Your task to perform on an android device: all mails in gmail Image 0: 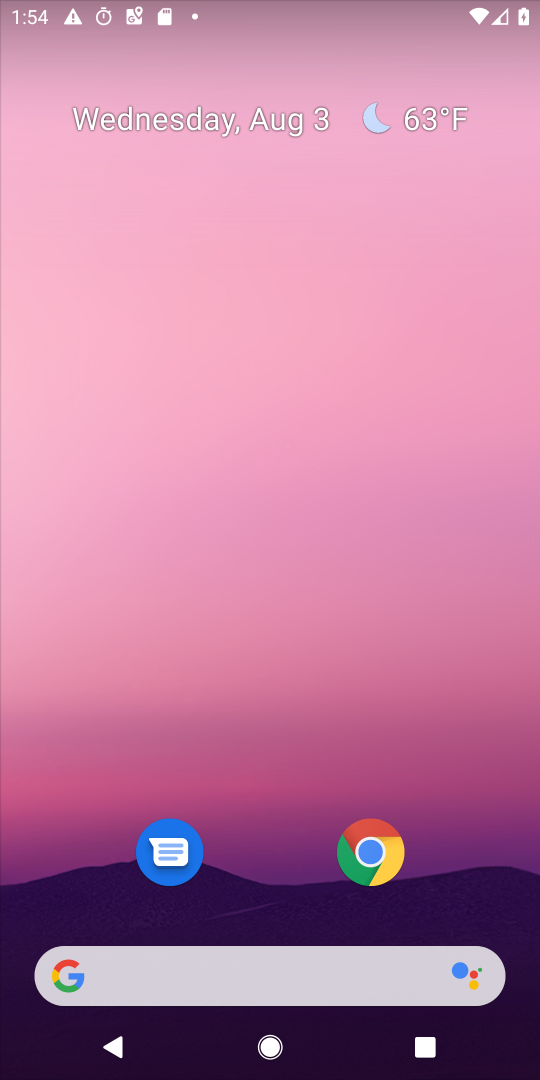
Step 0: drag from (490, 888) to (234, 88)
Your task to perform on an android device: all mails in gmail Image 1: 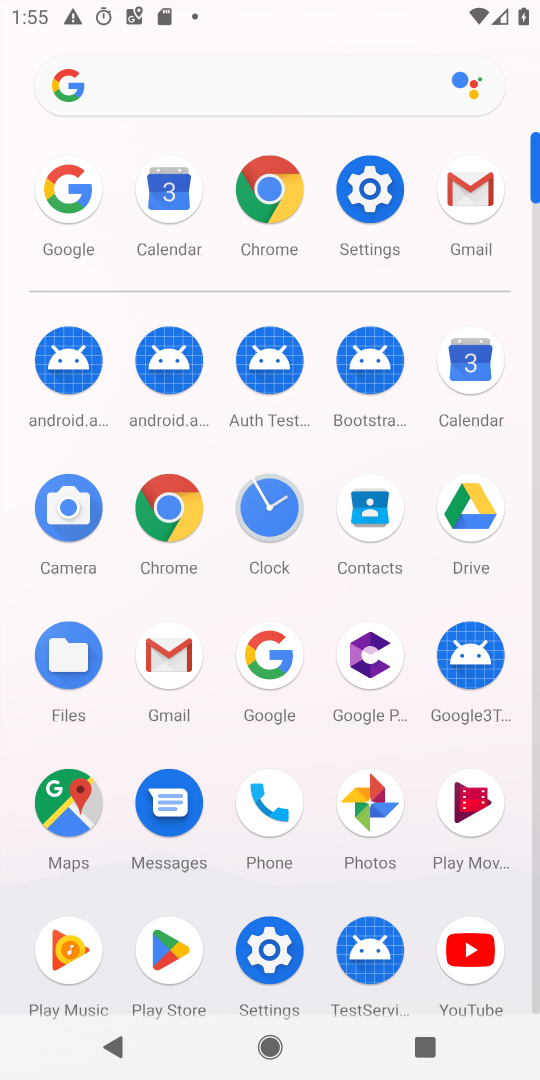
Step 1: click (166, 659)
Your task to perform on an android device: all mails in gmail Image 2: 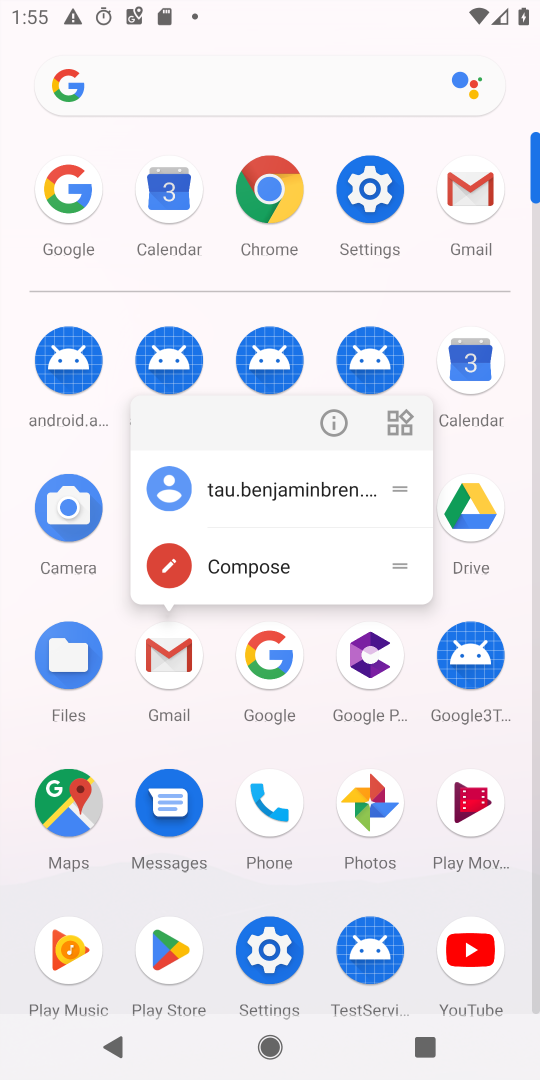
Step 2: click (166, 659)
Your task to perform on an android device: all mails in gmail Image 3: 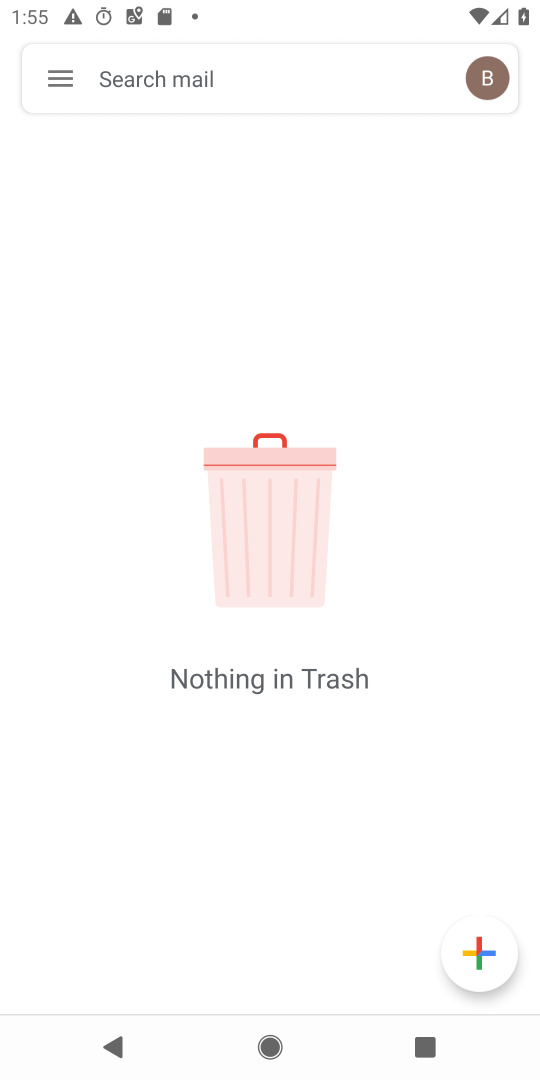
Step 3: click (60, 75)
Your task to perform on an android device: all mails in gmail Image 4: 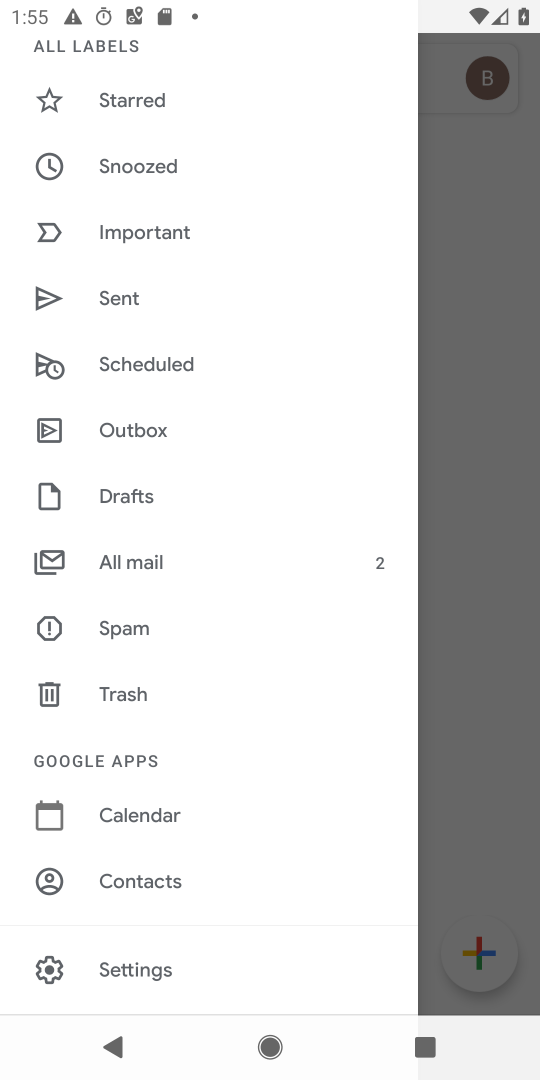
Step 4: drag from (219, 88) to (217, 788)
Your task to perform on an android device: all mails in gmail Image 5: 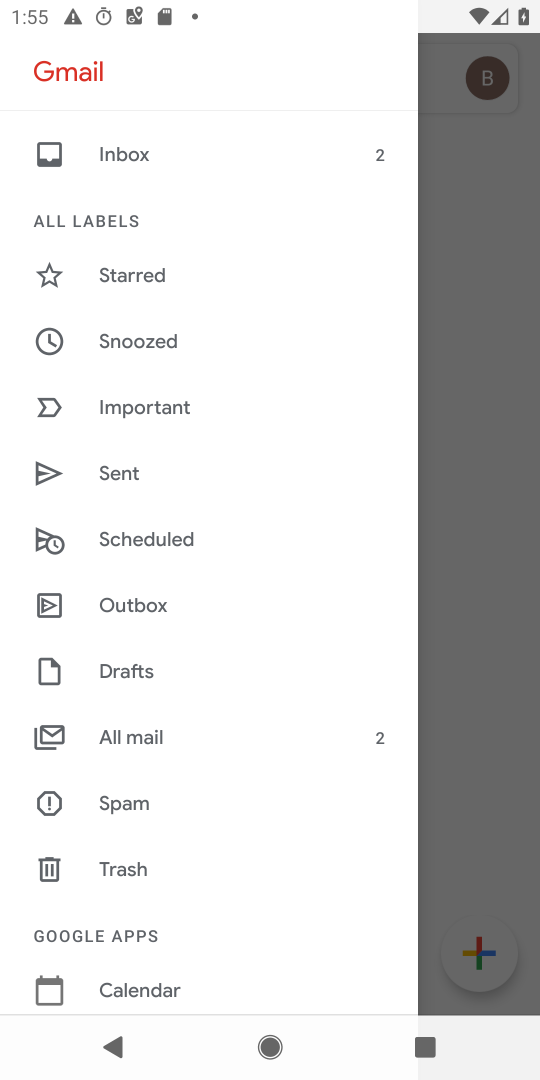
Step 5: click (136, 754)
Your task to perform on an android device: all mails in gmail Image 6: 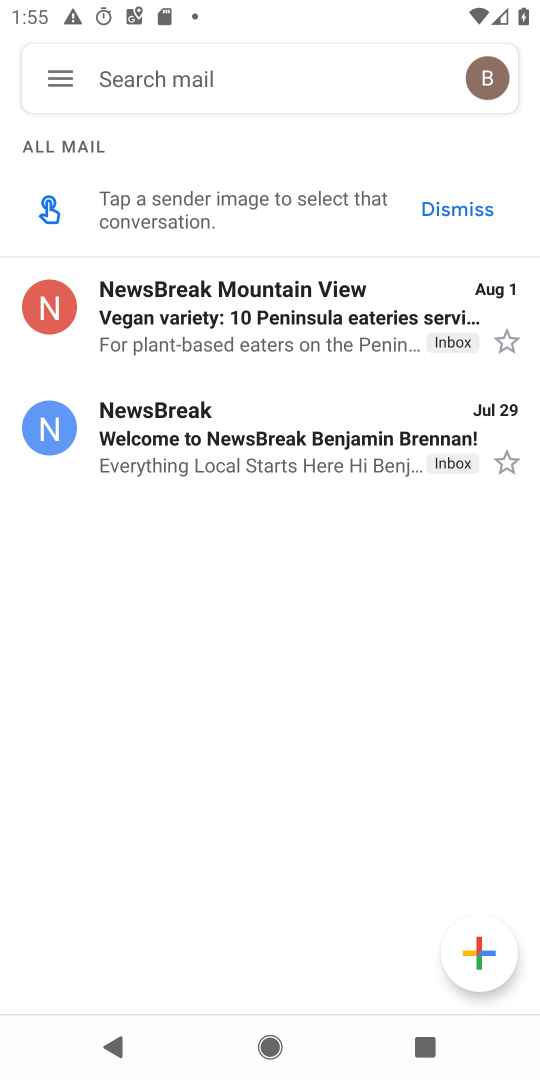
Step 6: task complete